Your task to perform on an android device: change keyboard looks Image 0: 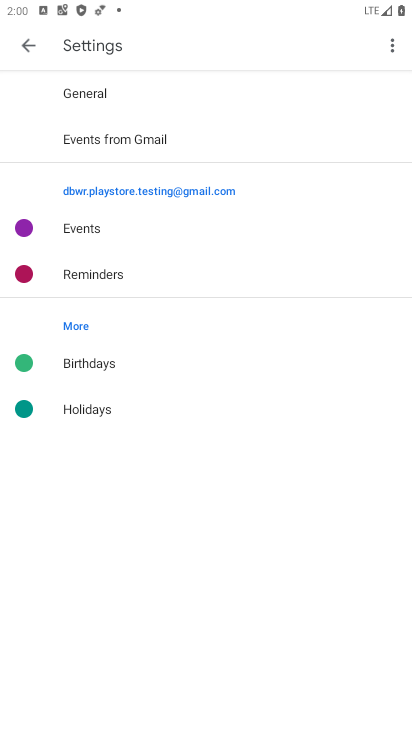
Step 0: press home button
Your task to perform on an android device: change keyboard looks Image 1: 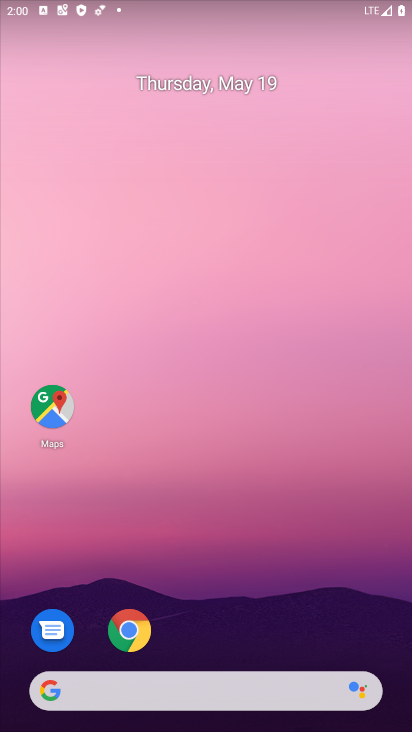
Step 1: drag from (377, 642) to (278, 18)
Your task to perform on an android device: change keyboard looks Image 2: 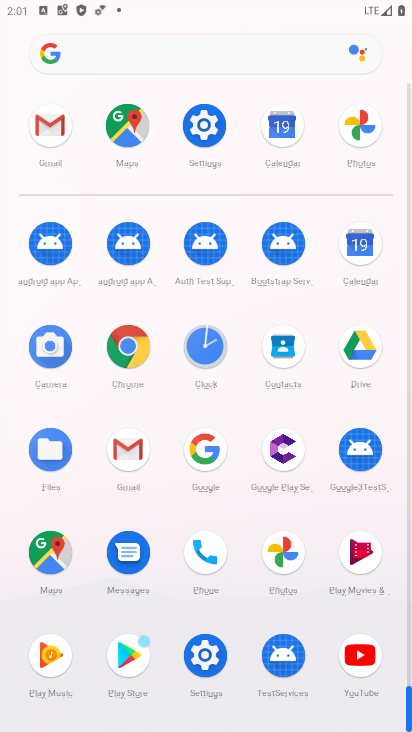
Step 2: click (202, 658)
Your task to perform on an android device: change keyboard looks Image 3: 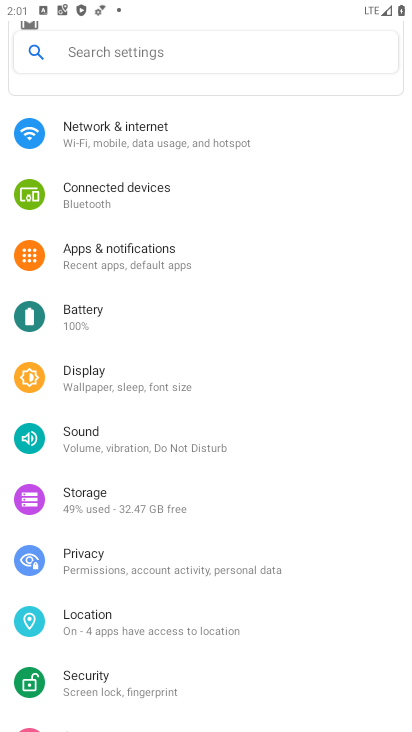
Step 3: drag from (311, 652) to (283, 186)
Your task to perform on an android device: change keyboard looks Image 4: 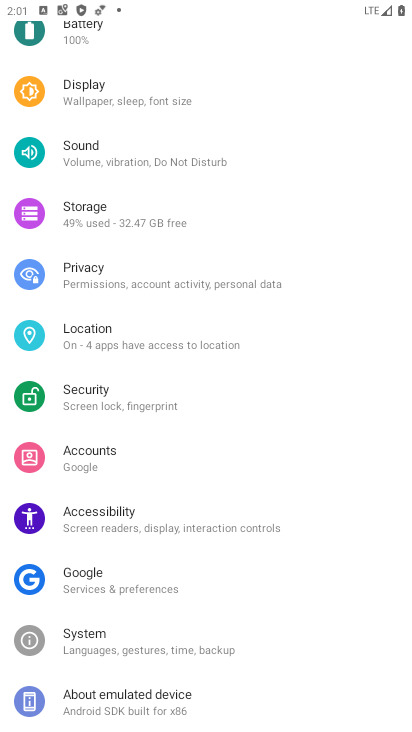
Step 4: click (88, 637)
Your task to perform on an android device: change keyboard looks Image 5: 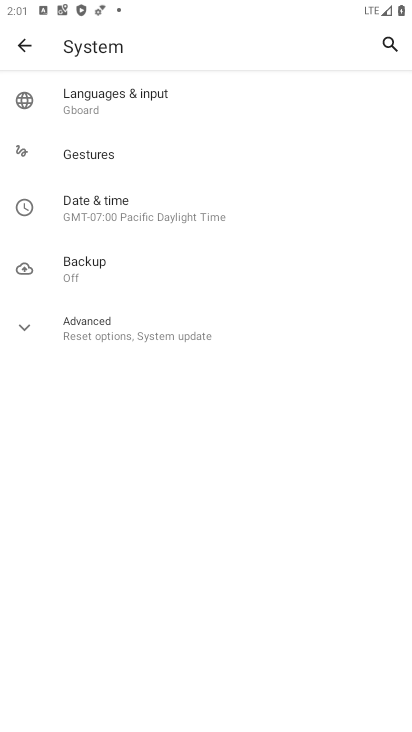
Step 5: click (86, 105)
Your task to perform on an android device: change keyboard looks Image 6: 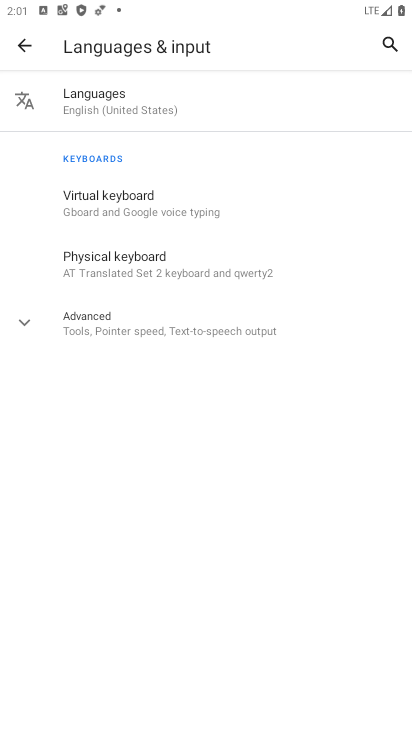
Step 6: click (100, 257)
Your task to perform on an android device: change keyboard looks Image 7: 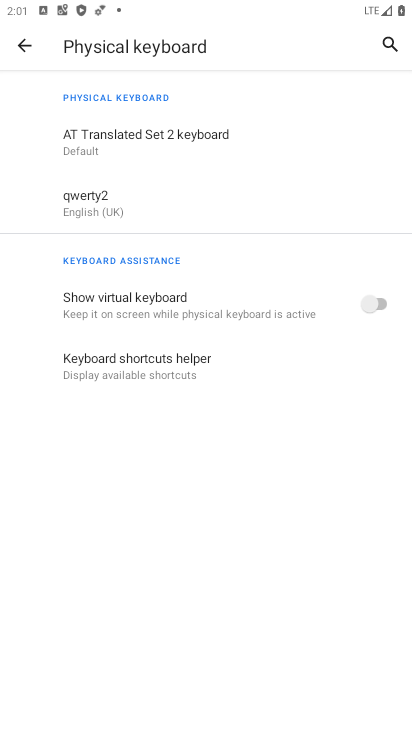
Step 7: click (99, 138)
Your task to perform on an android device: change keyboard looks Image 8: 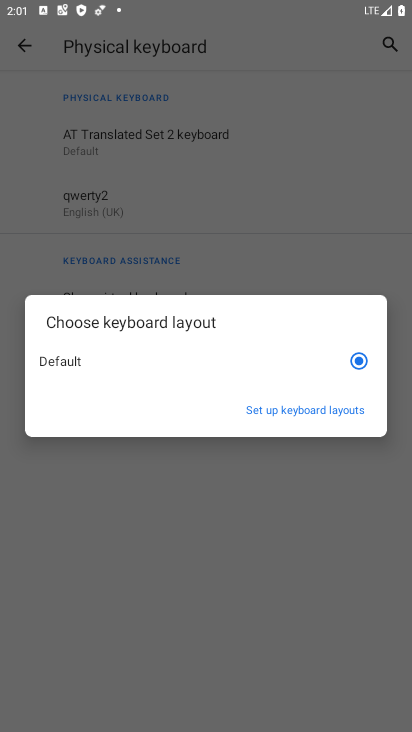
Step 8: click (303, 405)
Your task to perform on an android device: change keyboard looks Image 9: 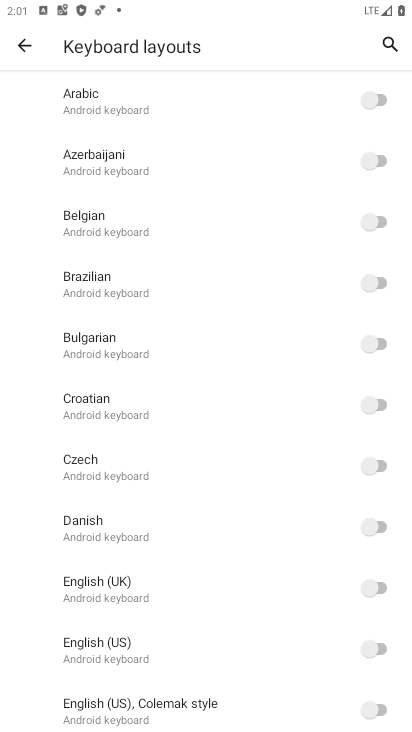
Step 9: click (380, 591)
Your task to perform on an android device: change keyboard looks Image 10: 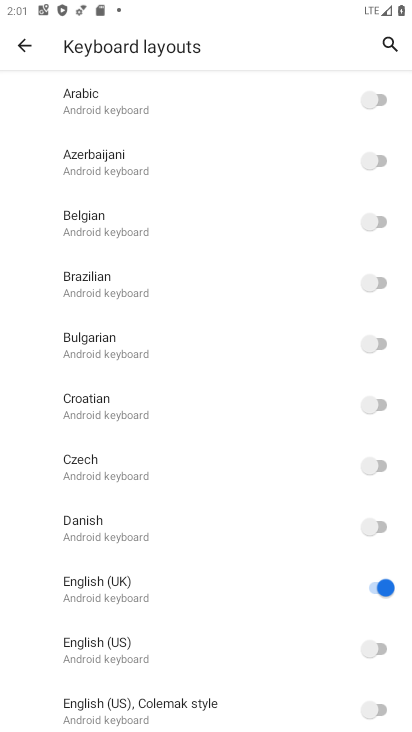
Step 10: task complete